Your task to perform on an android device: Show me popular games on the Play Store Image 0: 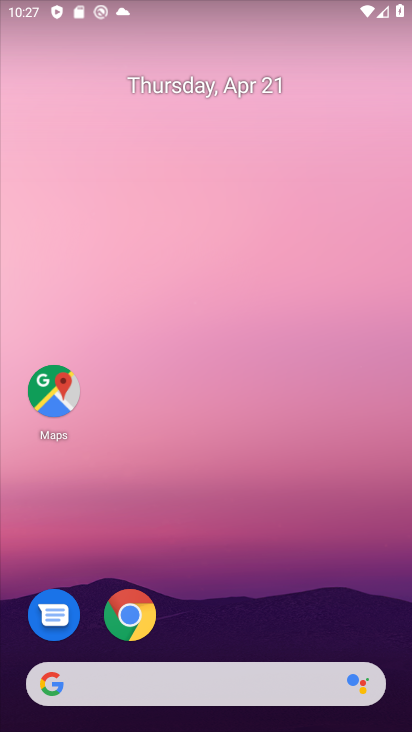
Step 0: drag from (211, 634) to (222, 133)
Your task to perform on an android device: Show me popular games on the Play Store Image 1: 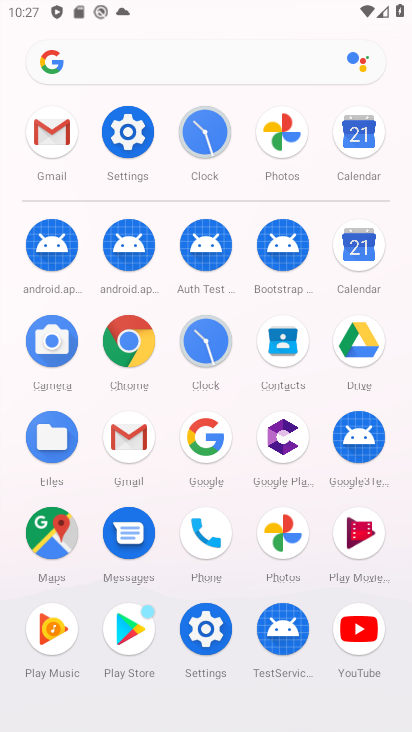
Step 1: click (123, 622)
Your task to perform on an android device: Show me popular games on the Play Store Image 2: 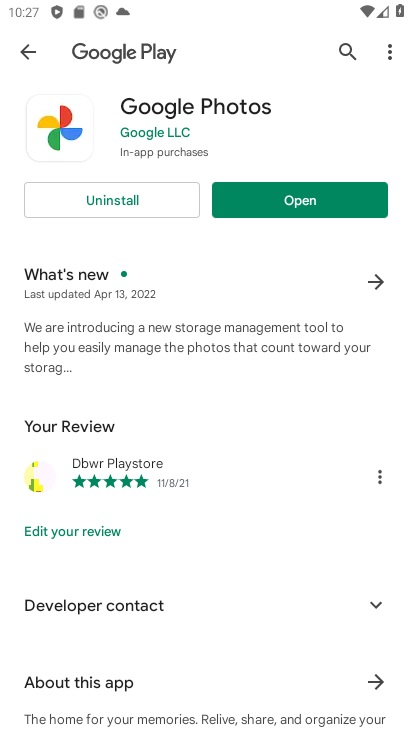
Step 2: click (31, 52)
Your task to perform on an android device: Show me popular games on the Play Store Image 3: 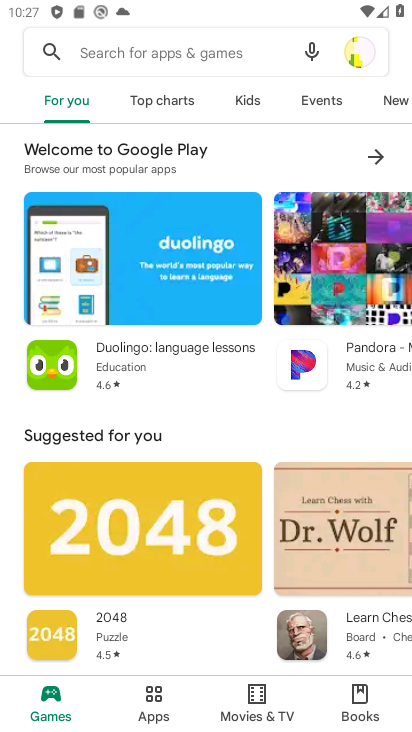
Step 3: click (154, 701)
Your task to perform on an android device: Show me popular games on the Play Store Image 4: 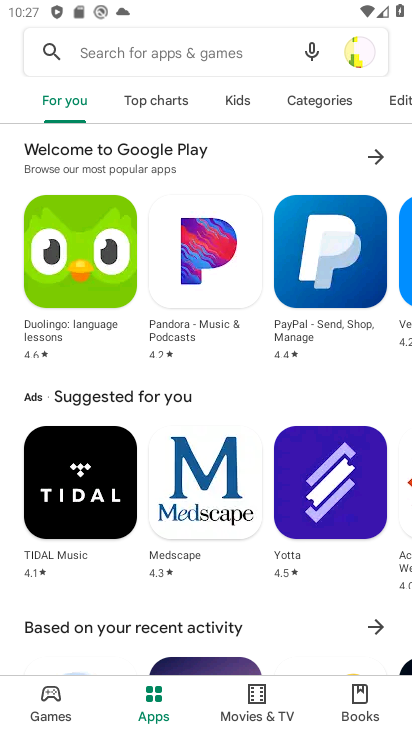
Step 4: drag from (380, 96) to (158, 106)
Your task to perform on an android device: Show me popular games on the Play Store Image 5: 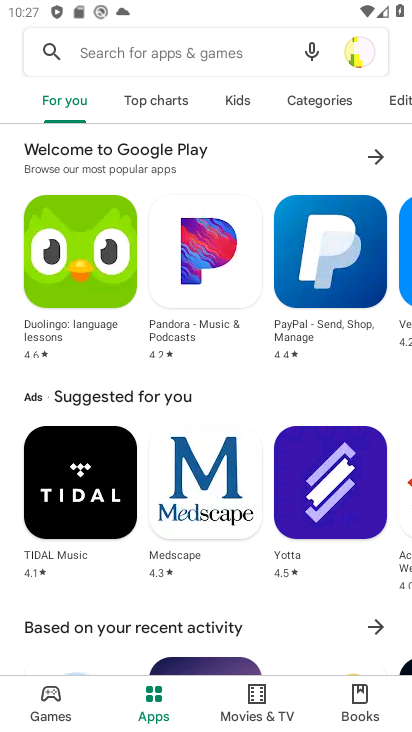
Step 5: drag from (378, 99) to (115, 99)
Your task to perform on an android device: Show me popular games on the Play Store Image 6: 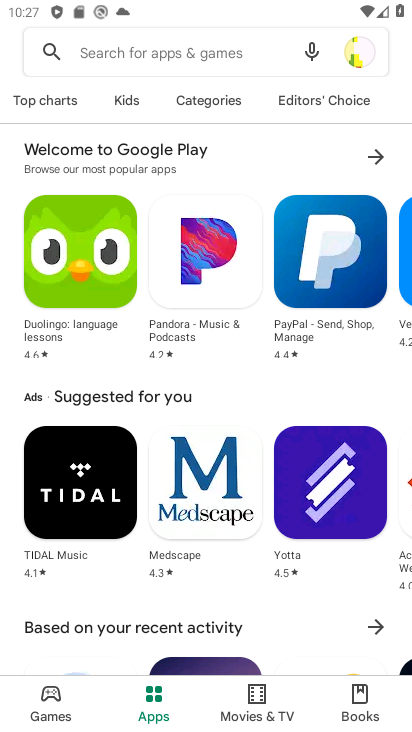
Step 6: drag from (181, 578) to (157, 88)
Your task to perform on an android device: Show me popular games on the Play Store Image 7: 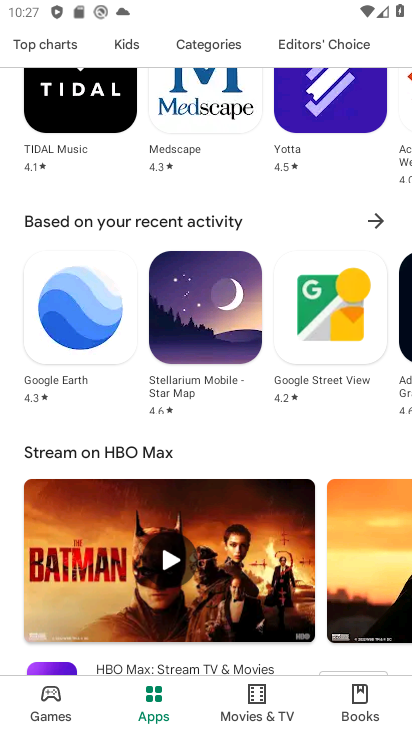
Step 7: drag from (200, 520) to (243, 50)
Your task to perform on an android device: Show me popular games on the Play Store Image 8: 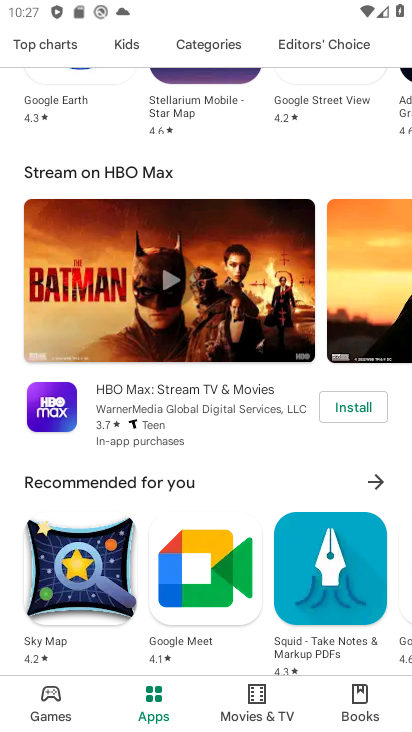
Step 8: drag from (218, 493) to (253, 77)
Your task to perform on an android device: Show me popular games on the Play Store Image 9: 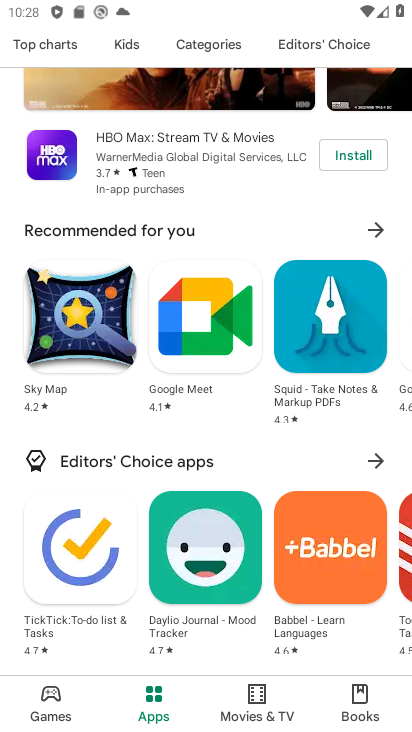
Step 9: click (44, 699)
Your task to perform on an android device: Show me popular games on the Play Store Image 10: 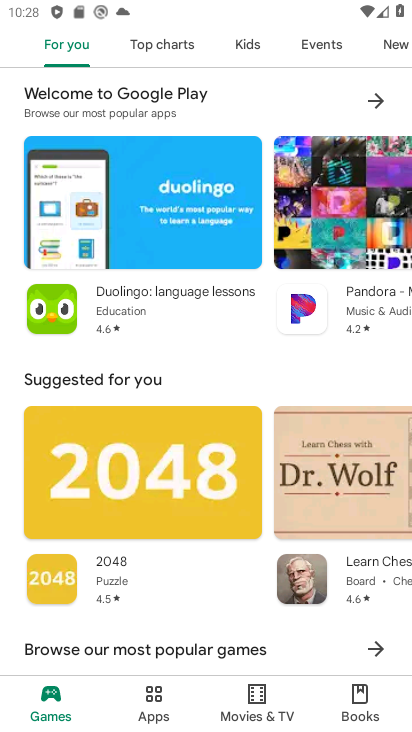
Step 10: drag from (212, 571) to (244, 114)
Your task to perform on an android device: Show me popular games on the Play Store Image 11: 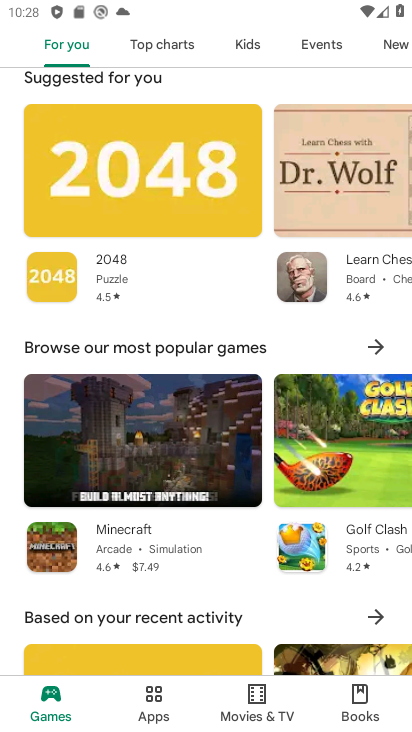
Step 11: click (370, 346)
Your task to perform on an android device: Show me popular games on the Play Store Image 12: 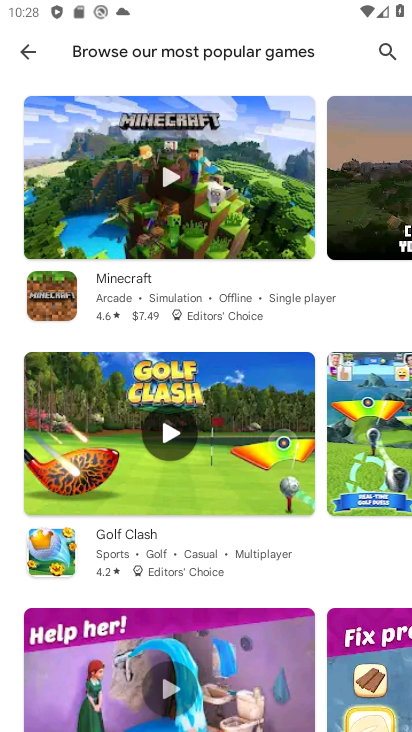
Step 12: task complete